Your task to perform on an android device: toggle pop-ups in chrome Image 0: 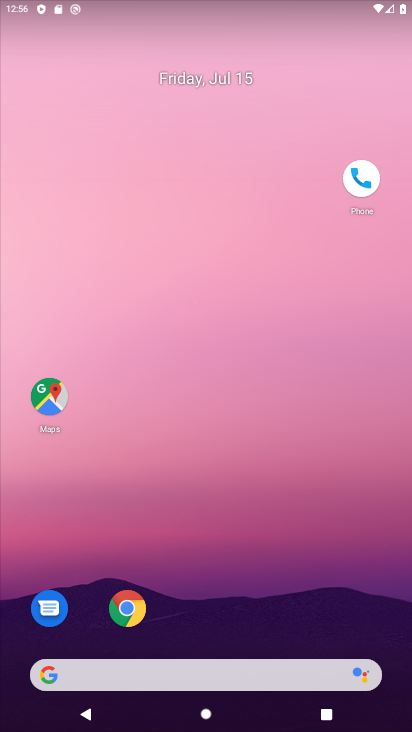
Step 0: drag from (193, 473) to (225, 233)
Your task to perform on an android device: toggle pop-ups in chrome Image 1: 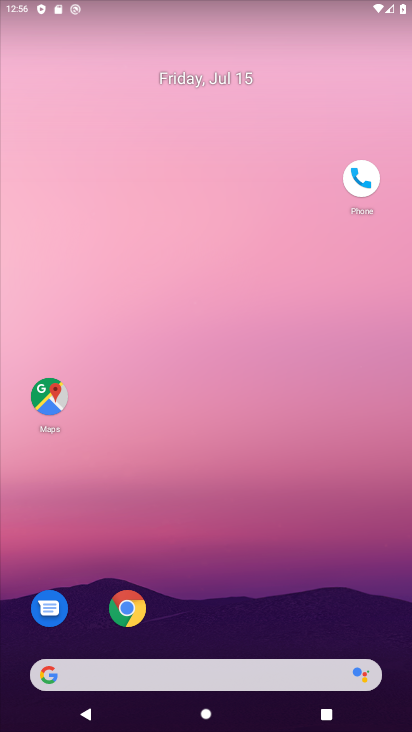
Step 1: click (138, 612)
Your task to perform on an android device: toggle pop-ups in chrome Image 2: 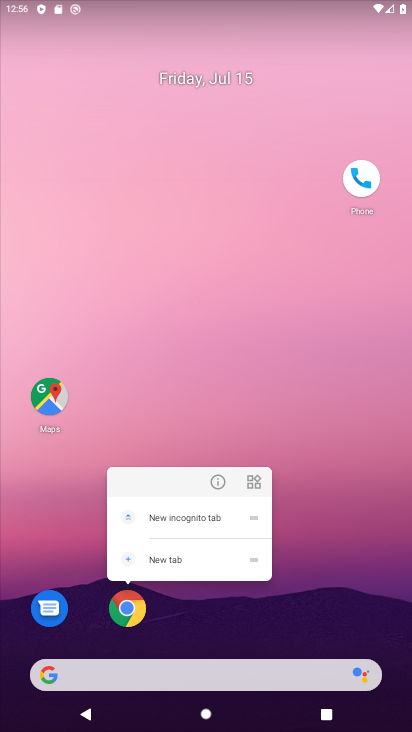
Step 2: click (209, 480)
Your task to perform on an android device: toggle pop-ups in chrome Image 3: 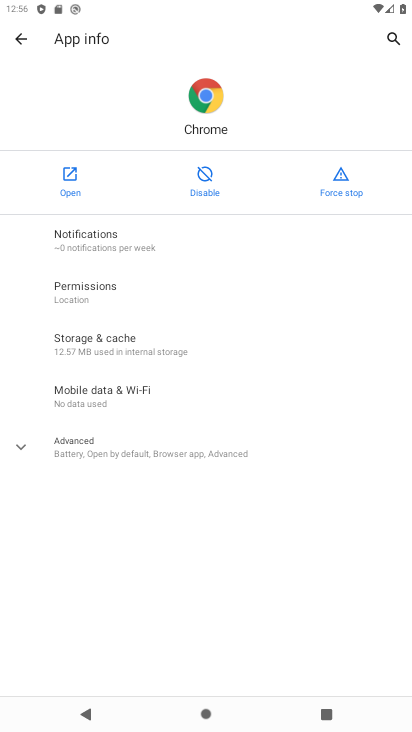
Step 3: click (78, 175)
Your task to perform on an android device: toggle pop-ups in chrome Image 4: 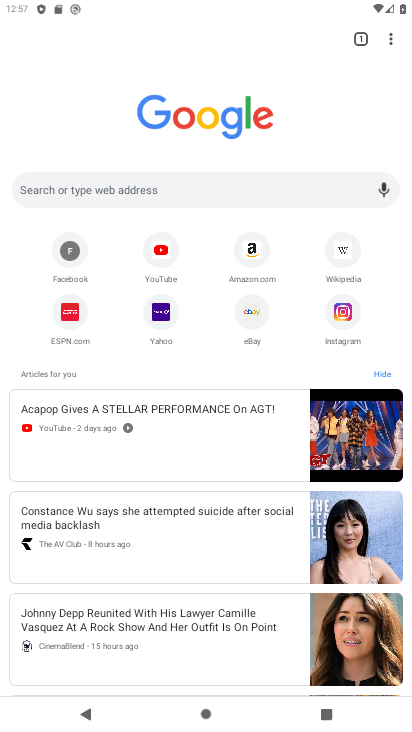
Step 4: drag from (190, 630) to (180, 301)
Your task to perform on an android device: toggle pop-ups in chrome Image 5: 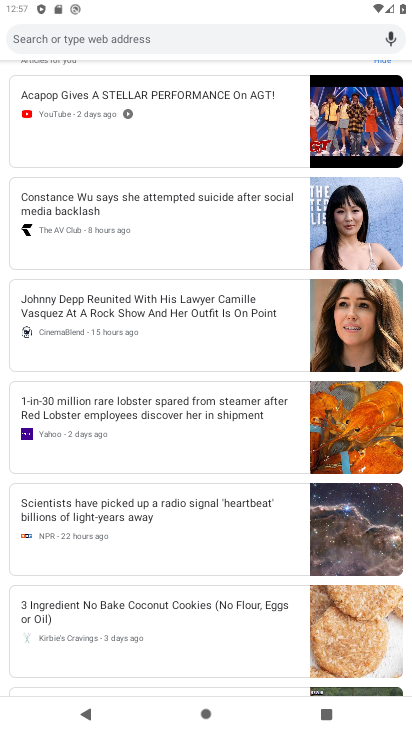
Step 5: drag from (173, 261) to (165, 626)
Your task to perform on an android device: toggle pop-ups in chrome Image 6: 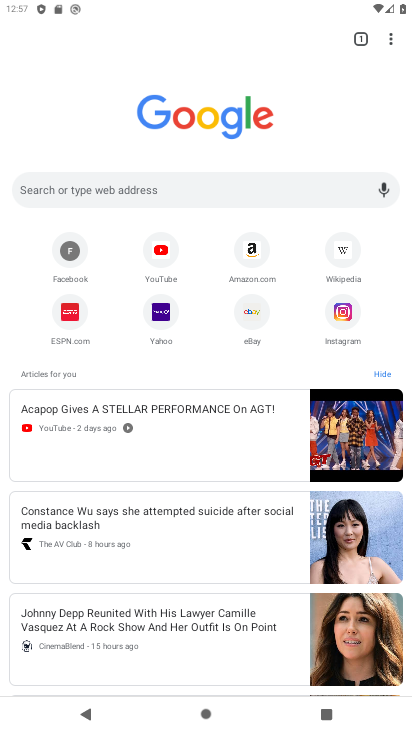
Step 6: drag from (391, 39) to (259, 324)
Your task to perform on an android device: toggle pop-ups in chrome Image 7: 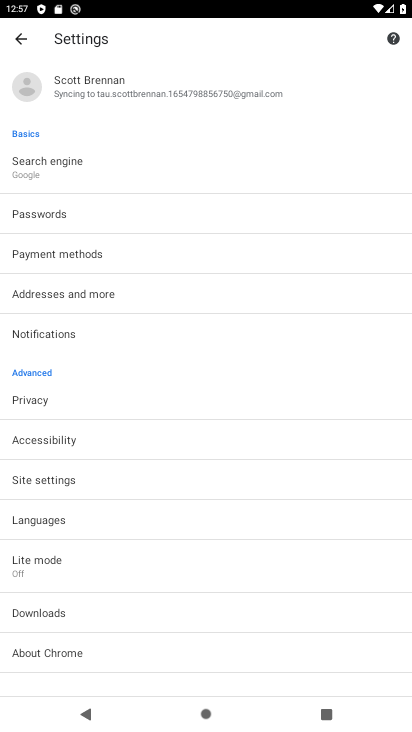
Step 7: click (74, 491)
Your task to perform on an android device: toggle pop-ups in chrome Image 8: 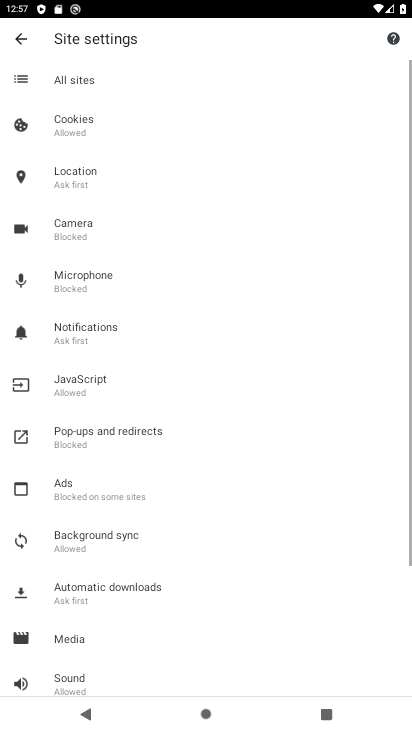
Step 8: drag from (128, 542) to (183, 243)
Your task to perform on an android device: toggle pop-ups in chrome Image 9: 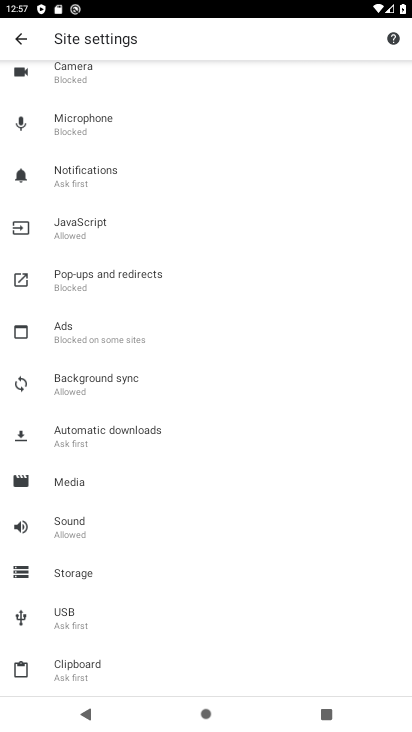
Step 9: click (122, 278)
Your task to perform on an android device: toggle pop-ups in chrome Image 10: 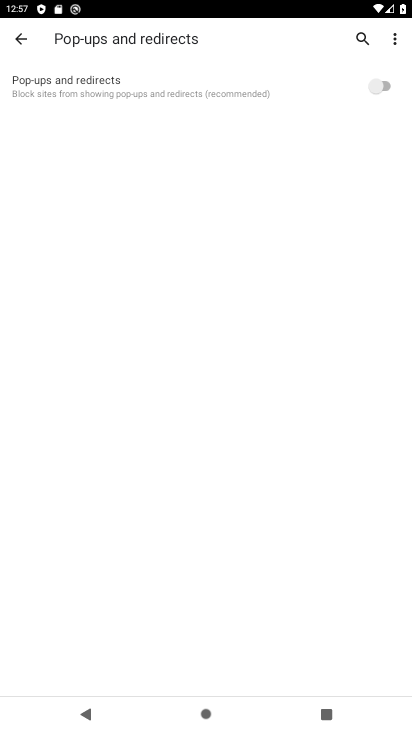
Step 10: click (312, 98)
Your task to perform on an android device: toggle pop-ups in chrome Image 11: 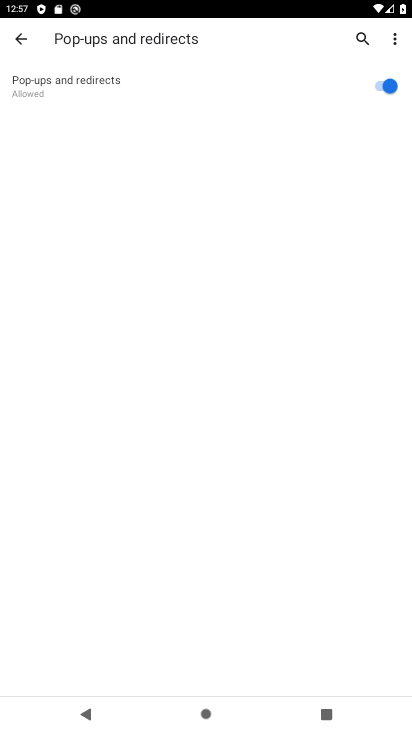
Step 11: task complete